Your task to perform on an android device: open app "Gboard" (install if not already installed) Image 0: 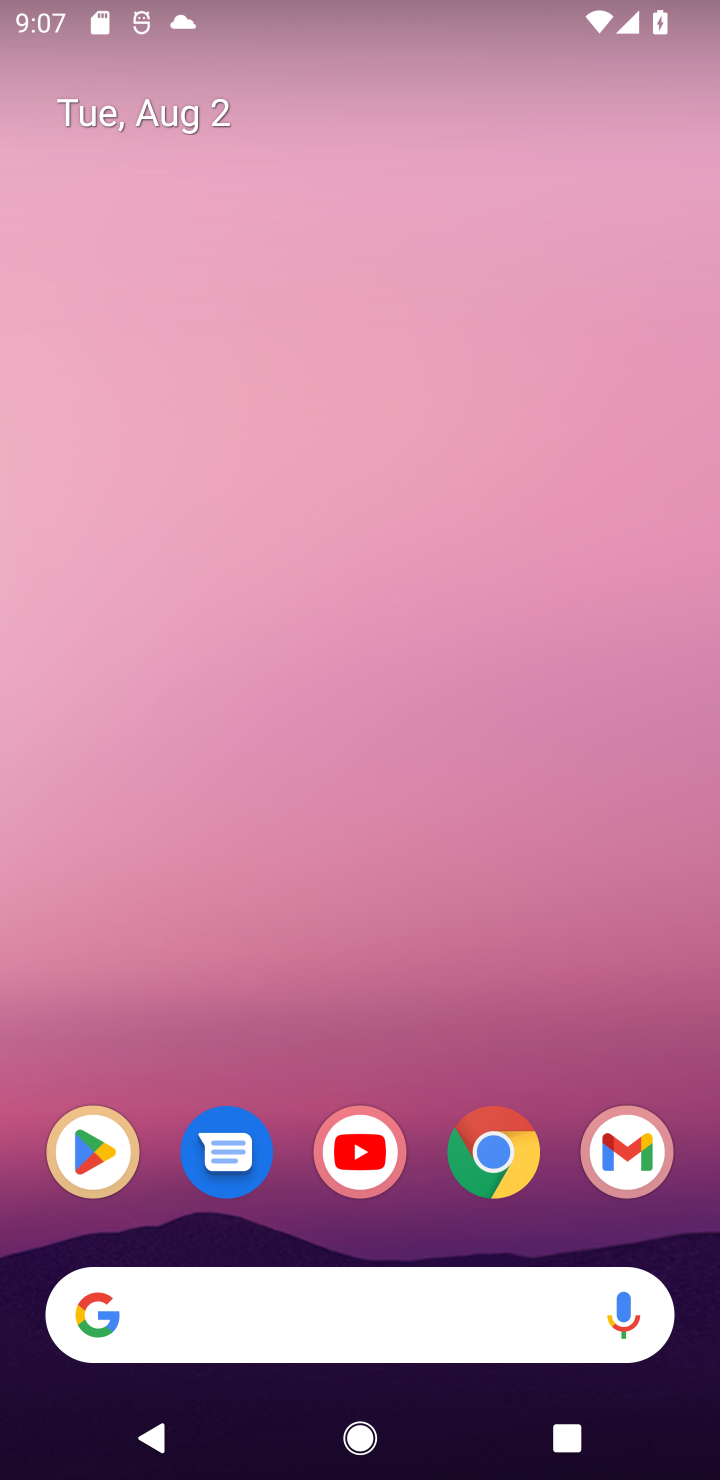
Step 0: click (70, 1160)
Your task to perform on an android device: open app "Gboard" (install if not already installed) Image 1: 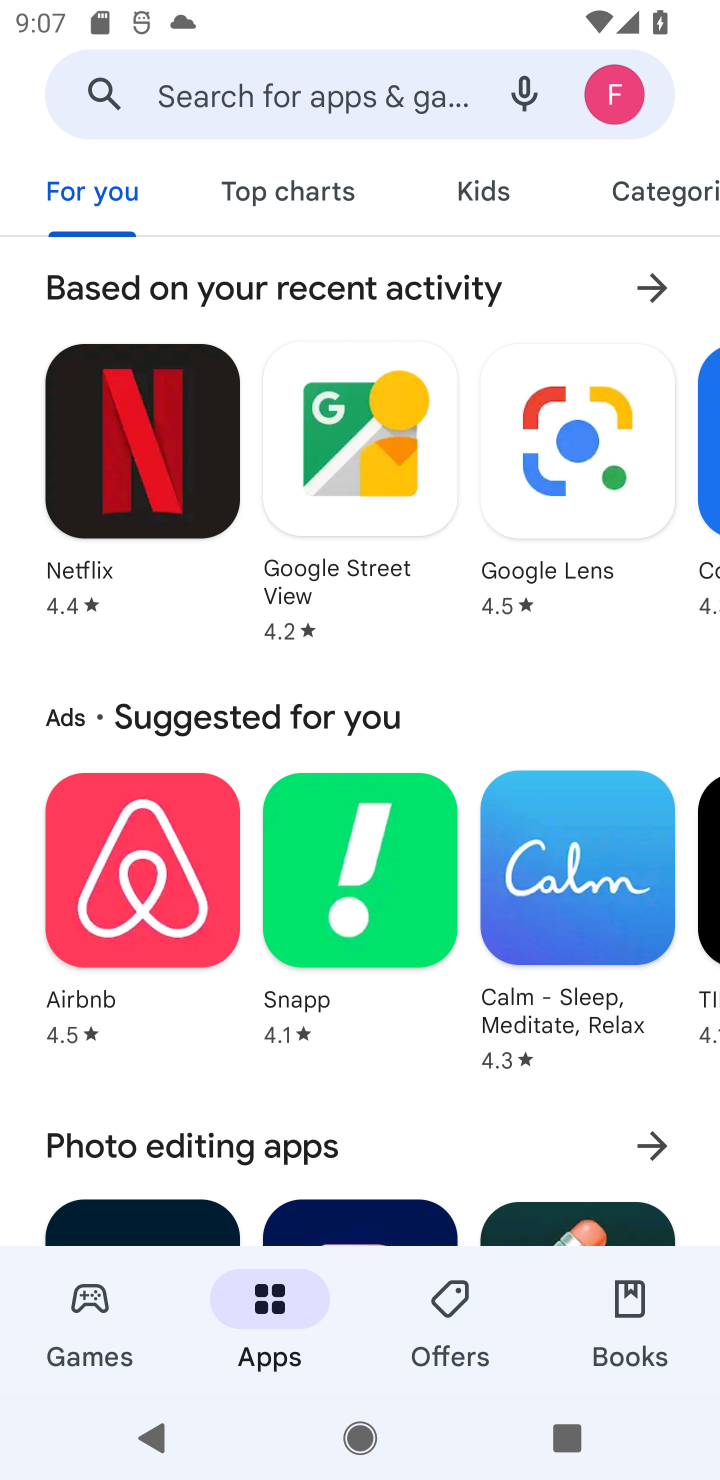
Step 1: click (204, 103)
Your task to perform on an android device: open app "Gboard" (install if not already installed) Image 2: 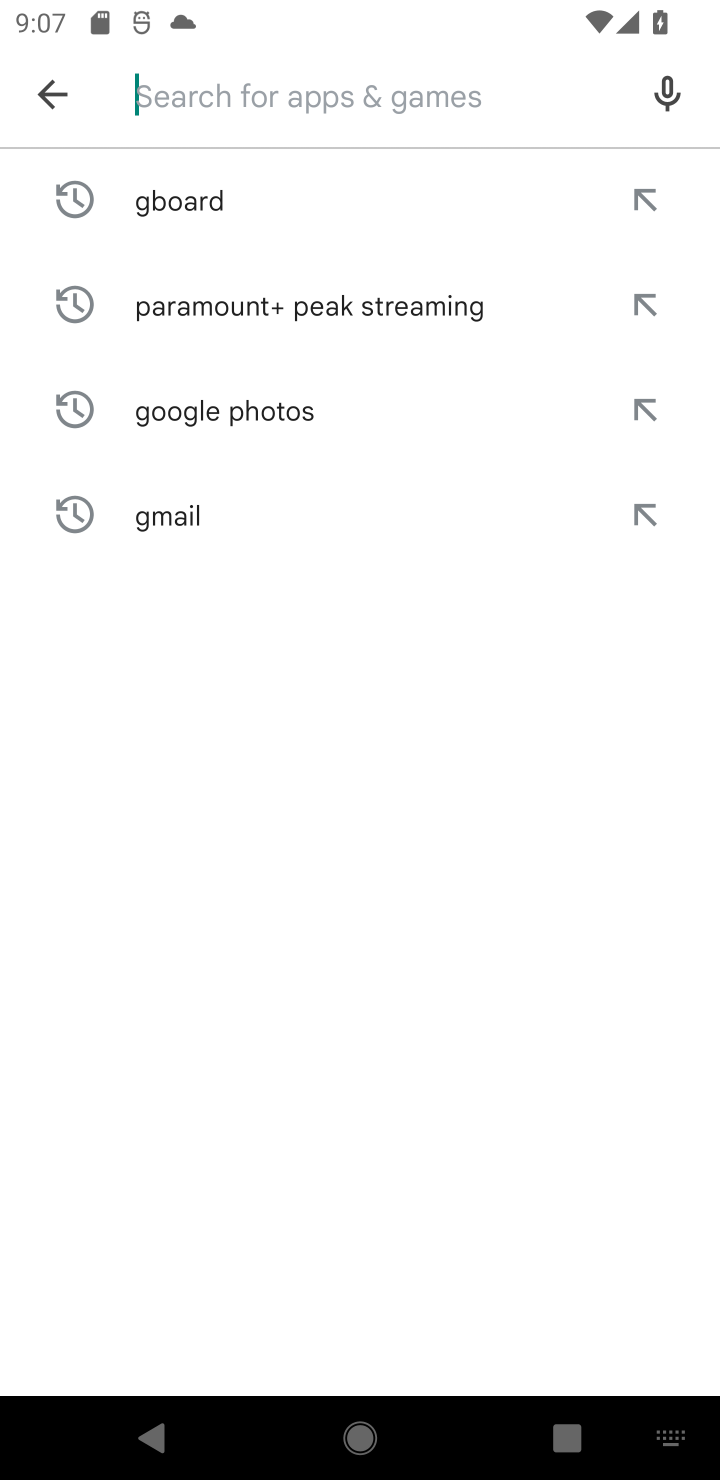
Step 2: type "Gboard"
Your task to perform on an android device: open app "Gboard" (install if not already installed) Image 3: 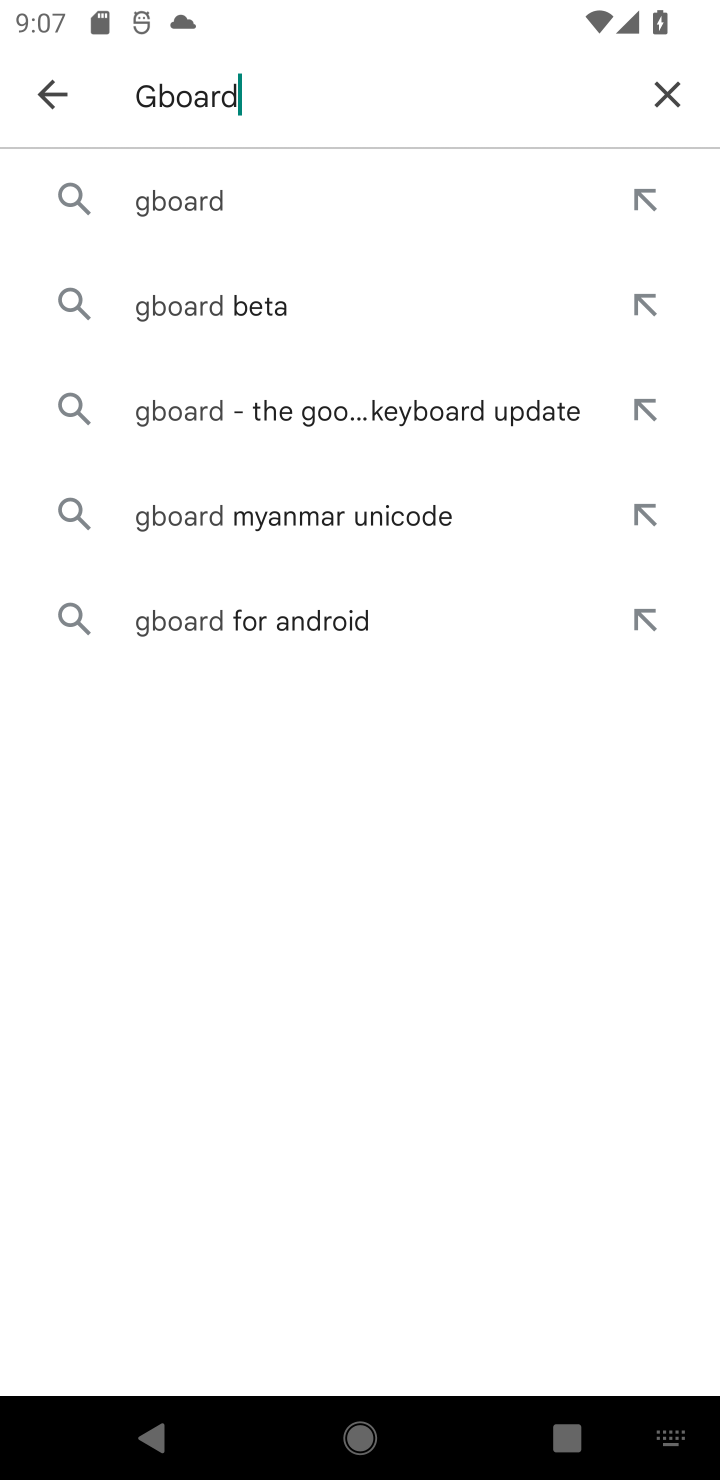
Step 3: click (165, 212)
Your task to perform on an android device: open app "Gboard" (install if not already installed) Image 4: 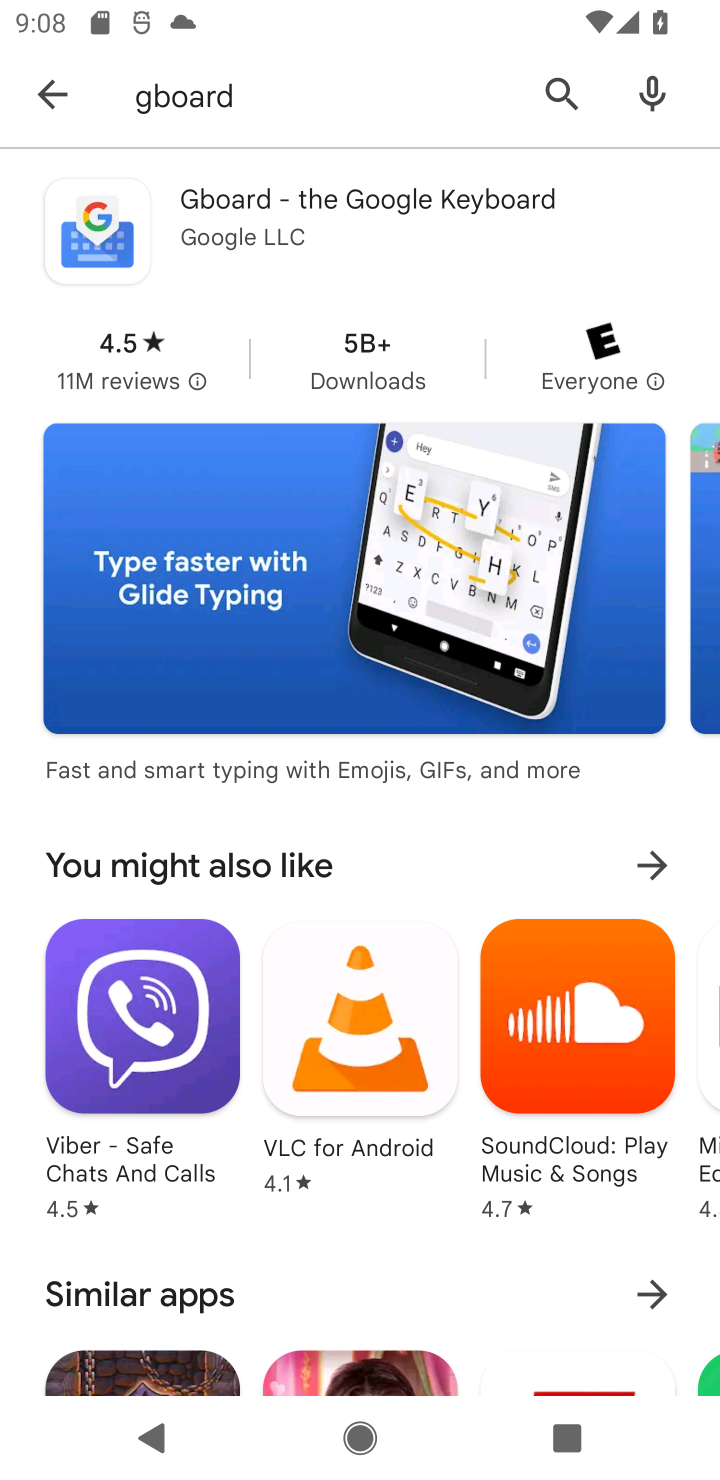
Step 4: click (310, 231)
Your task to perform on an android device: open app "Gboard" (install if not already installed) Image 5: 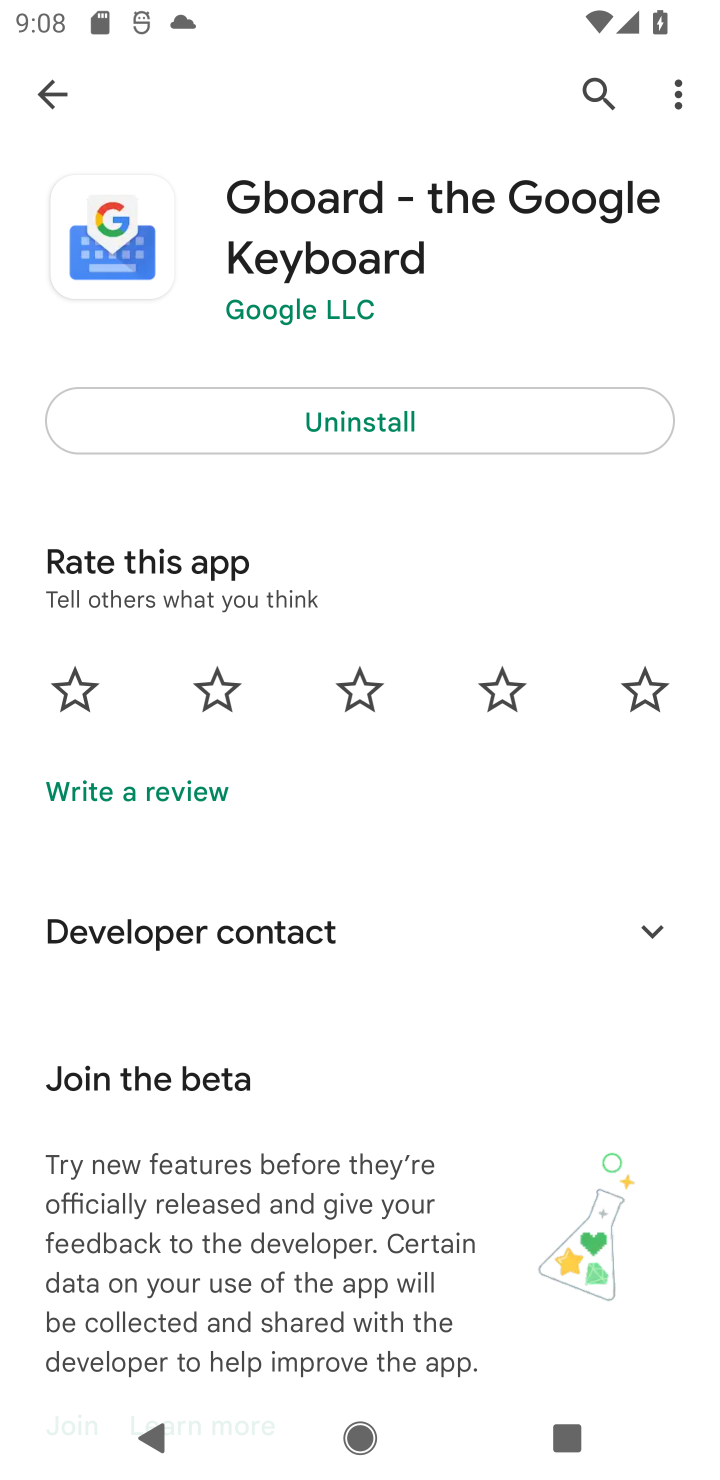
Step 5: task complete